Your task to perform on an android device: uninstall "Lyft - Rideshare, Bikes, Scooters & Transit" Image 0: 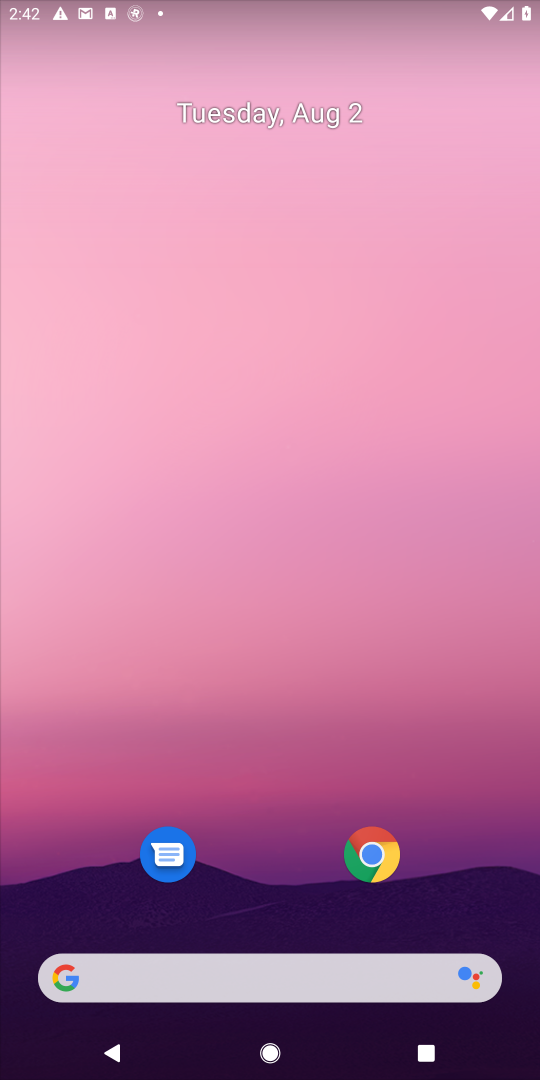
Step 0: drag from (293, 1000) to (278, 151)
Your task to perform on an android device: uninstall "Lyft - Rideshare, Bikes, Scooters & Transit" Image 1: 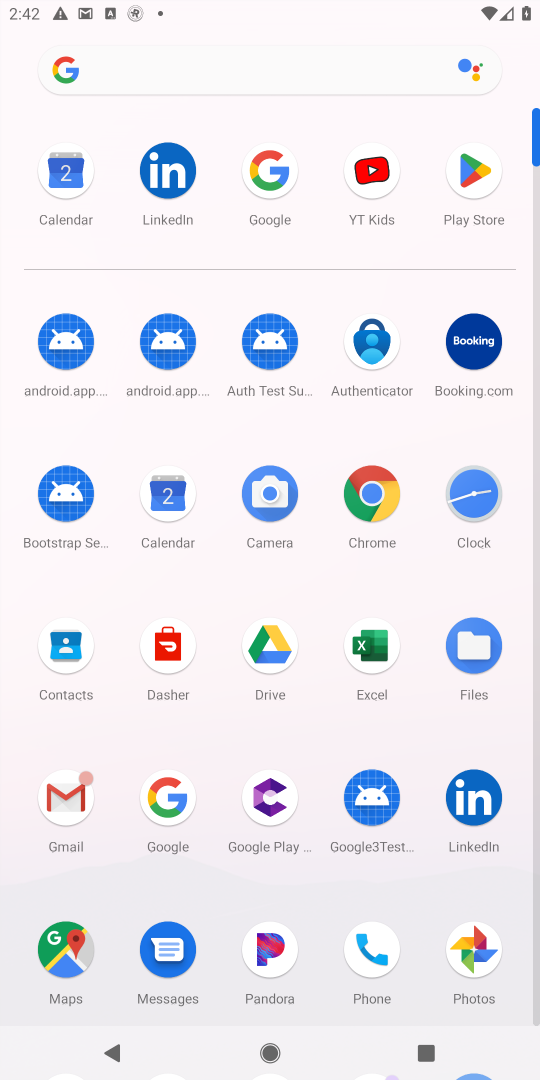
Step 1: click (480, 165)
Your task to perform on an android device: uninstall "Lyft - Rideshare, Bikes, Scooters & Transit" Image 2: 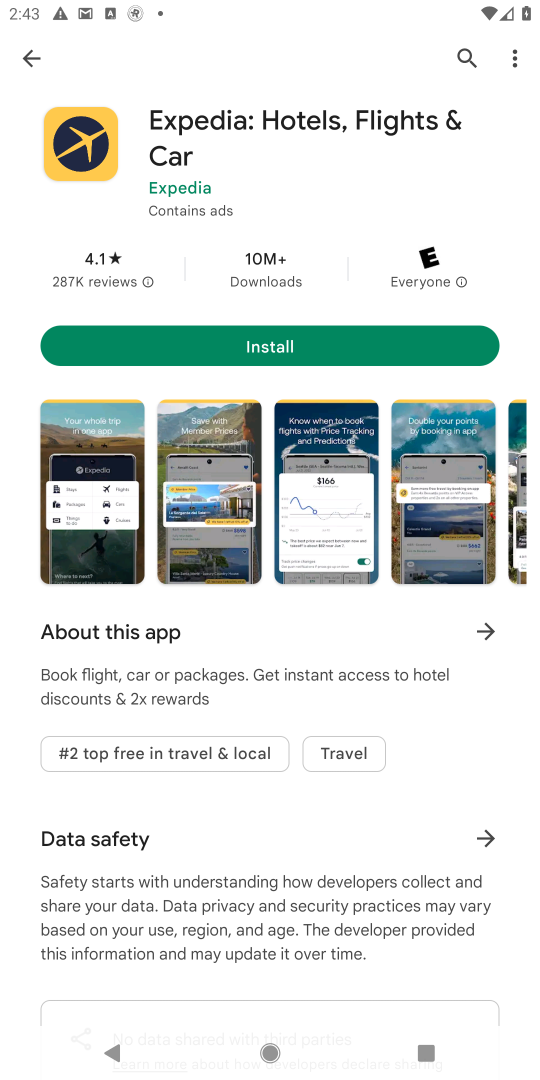
Step 2: task complete